Your task to perform on an android device: Go to network settings Image 0: 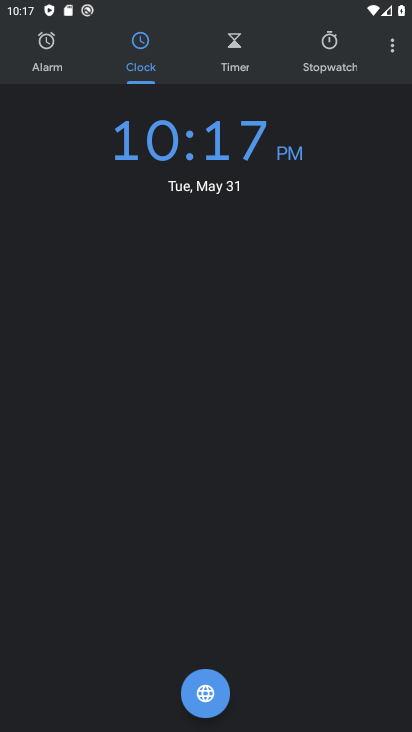
Step 0: press home button
Your task to perform on an android device: Go to network settings Image 1: 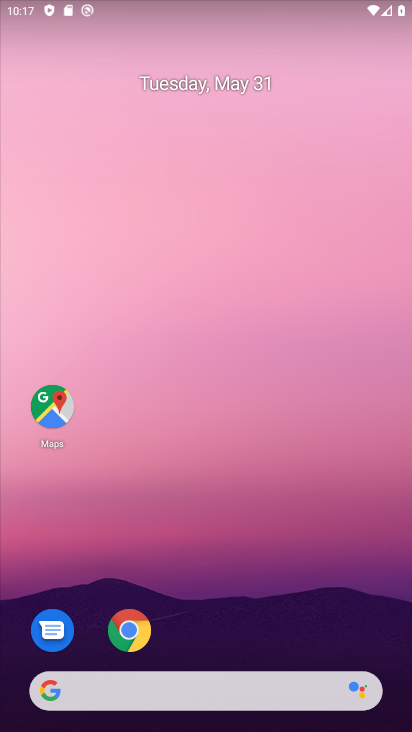
Step 1: drag from (216, 582) to (313, 0)
Your task to perform on an android device: Go to network settings Image 2: 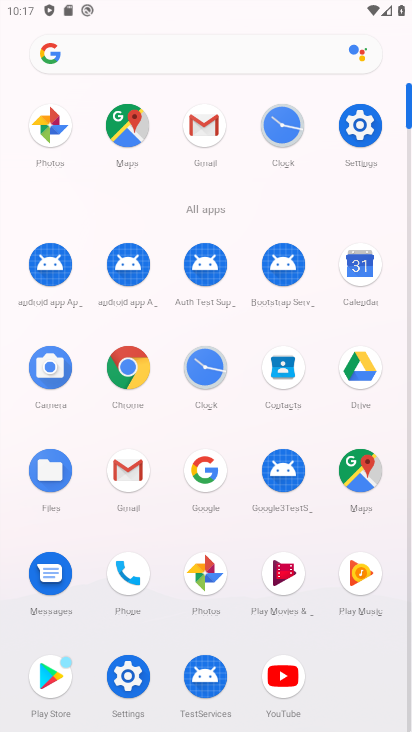
Step 2: click (351, 131)
Your task to perform on an android device: Go to network settings Image 3: 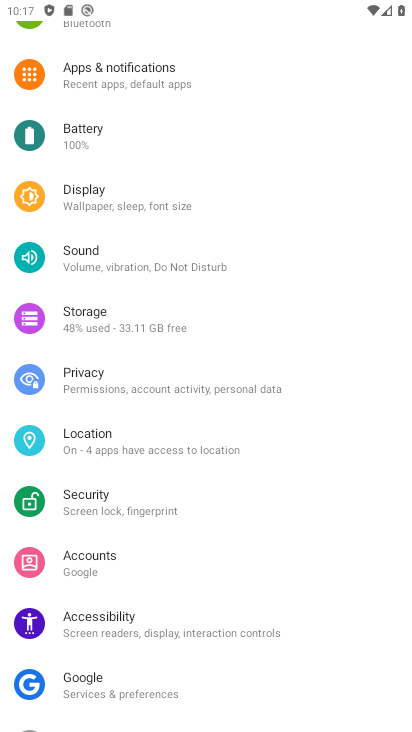
Step 3: drag from (142, 133) to (142, 565)
Your task to perform on an android device: Go to network settings Image 4: 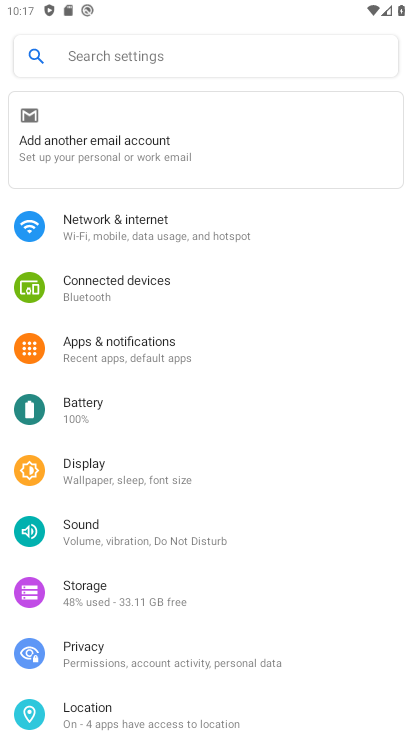
Step 4: click (177, 235)
Your task to perform on an android device: Go to network settings Image 5: 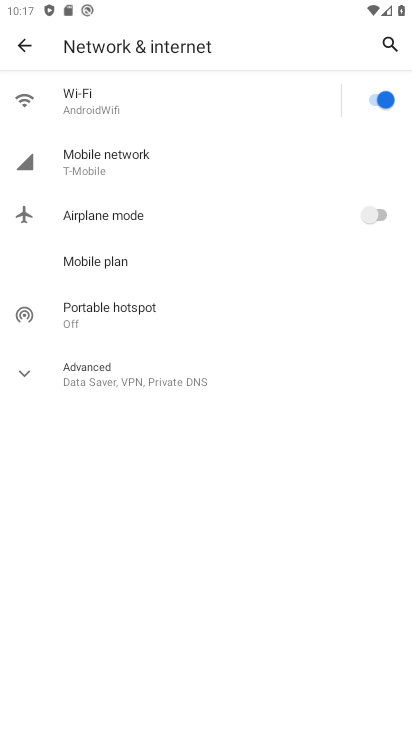
Step 5: task complete